Your task to perform on an android device: change text size in settings app Image 0: 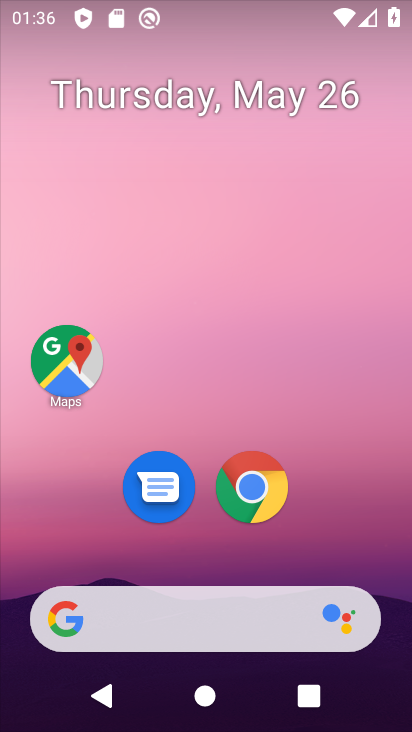
Step 0: drag from (232, 594) to (144, 53)
Your task to perform on an android device: change text size in settings app Image 1: 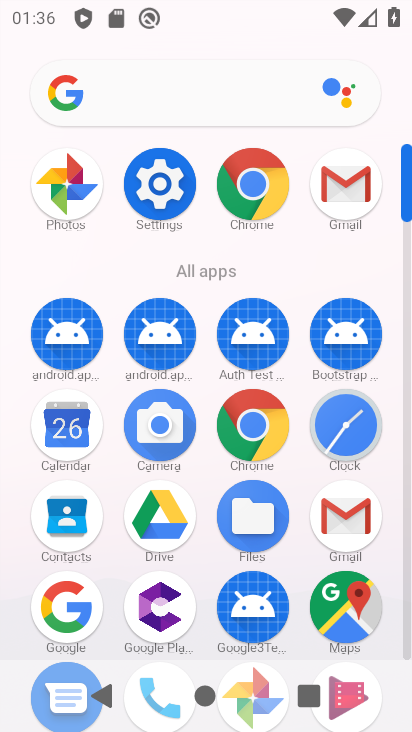
Step 1: click (166, 189)
Your task to perform on an android device: change text size in settings app Image 2: 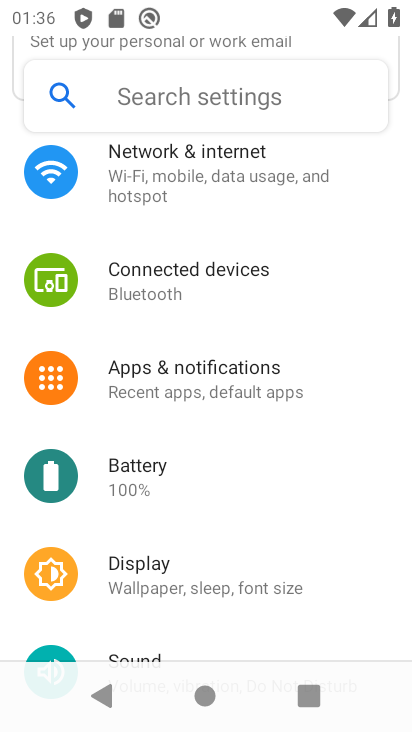
Step 2: click (168, 570)
Your task to perform on an android device: change text size in settings app Image 3: 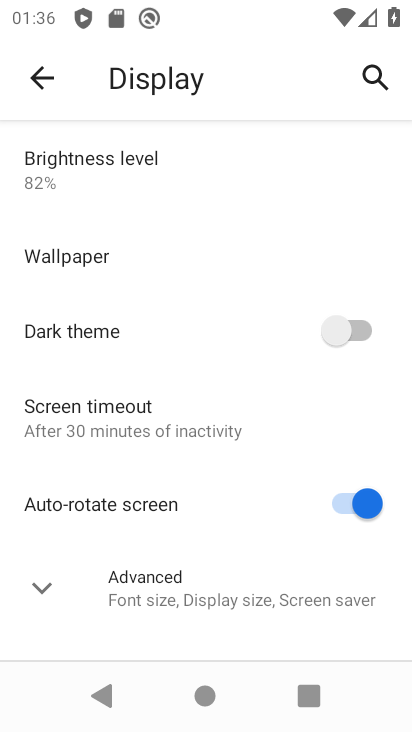
Step 3: click (186, 596)
Your task to perform on an android device: change text size in settings app Image 4: 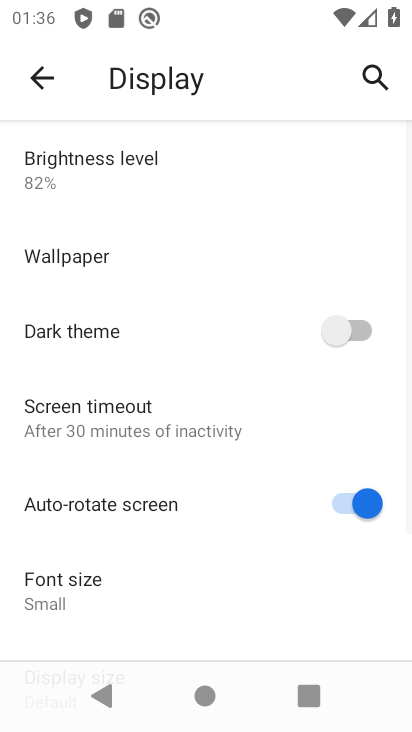
Step 4: click (84, 590)
Your task to perform on an android device: change text size in settings app Image 5: 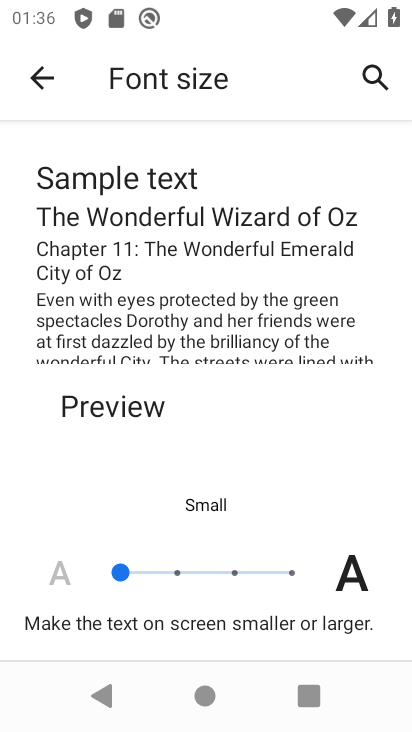
Step 5: click (172, 579)
Your task to perform on an android device: change text size in settings app Image 6: 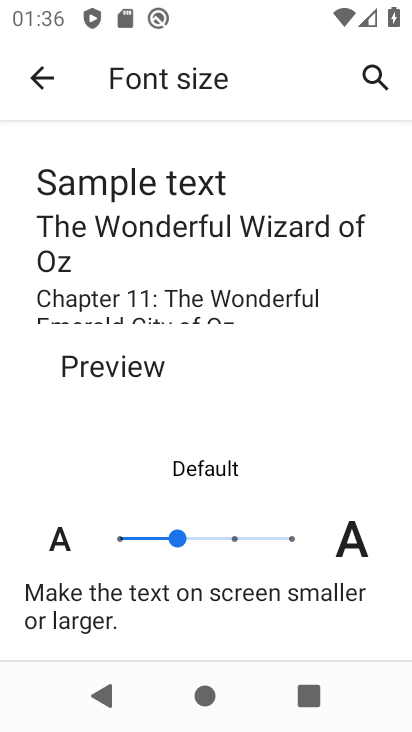
Step 6: click (120, 534)
Your task to perform on an android device: change text size in settings app Image 7: 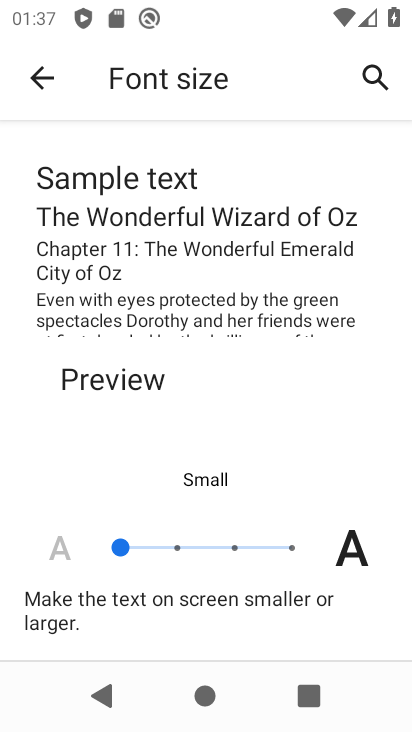
Step 7: task complete